Your task to perform on an android device: turn on translation in the chrome app Image 0: 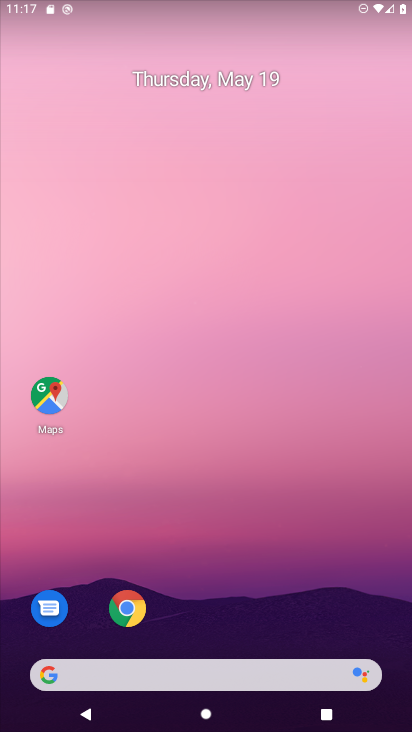
Step 0: click (137, 609)
Your task to perform on an android device: turn on translation in the chrome app Image 1: 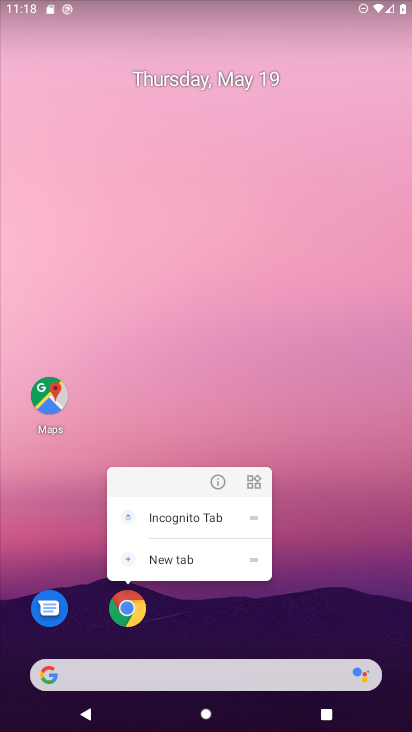
Step 1: click (133, 626)
Your task to perform on an android device: turn on translation in the chrome app Image 2: 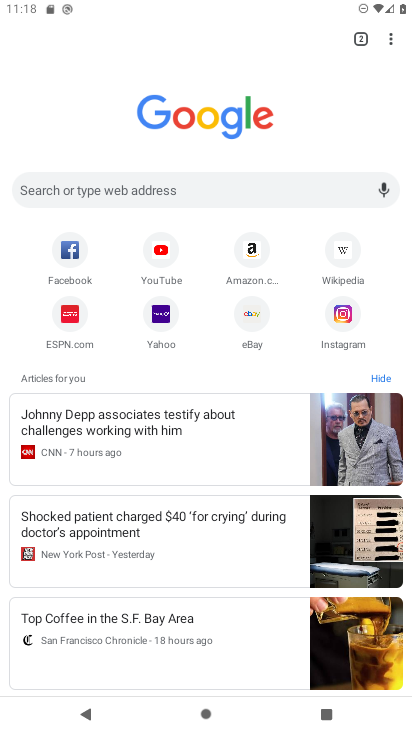
Step 2: drag from (397, 45) to (247, 333)
Your task to perform on an android device: turn on translation in the chrome app Image 3: 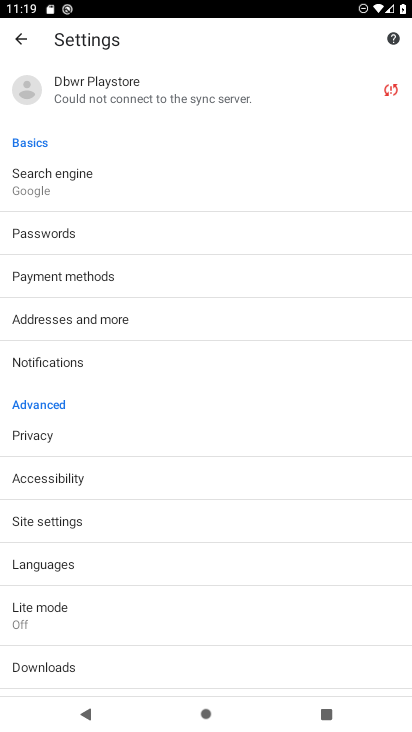
Step 3: click (79, 558)
Your task to perform on an android device: turn on translation in the chrome app Image 4: 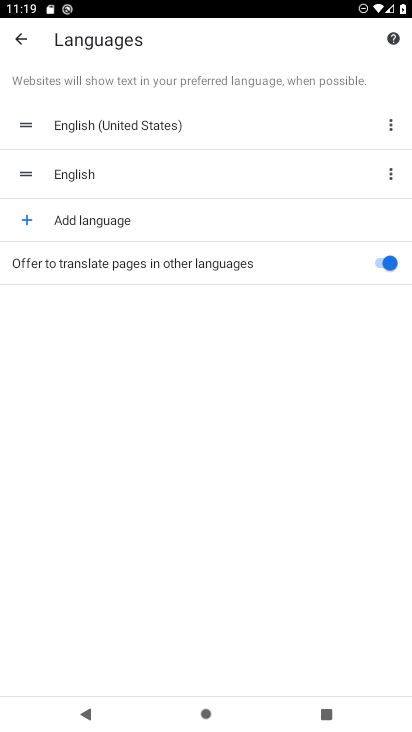
Step 4: click (376, 262)
Your task to perform on an android device: turn on translation in the chrome app Image 5: 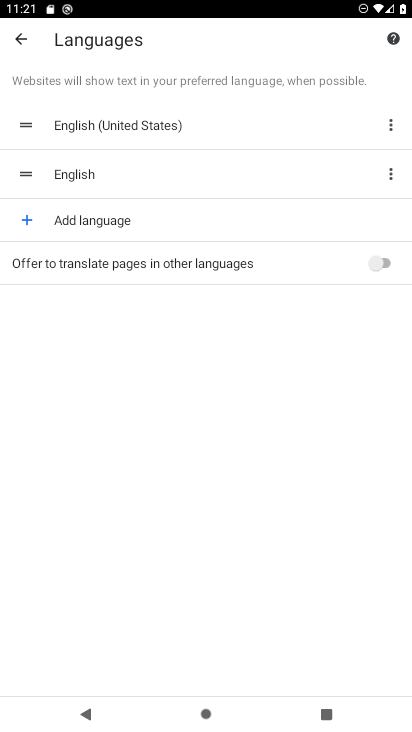
Step 5: click (388, 267)
Your task to perform on an android device: turn on translation in the chrome app Image 6: 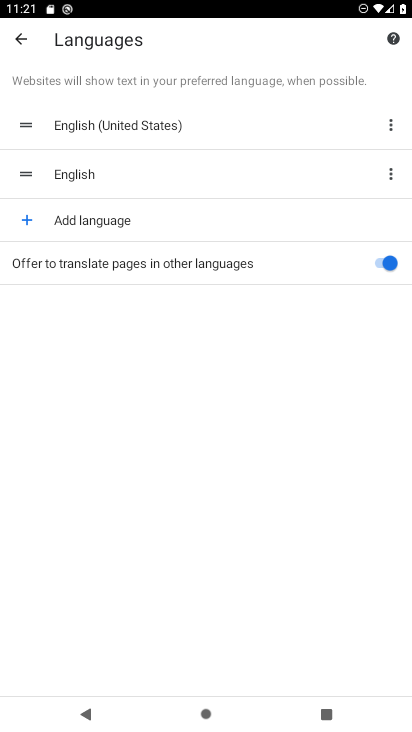
Step 6: task complete